Your task to perform on an android device: turn on sleep mode Image 0: 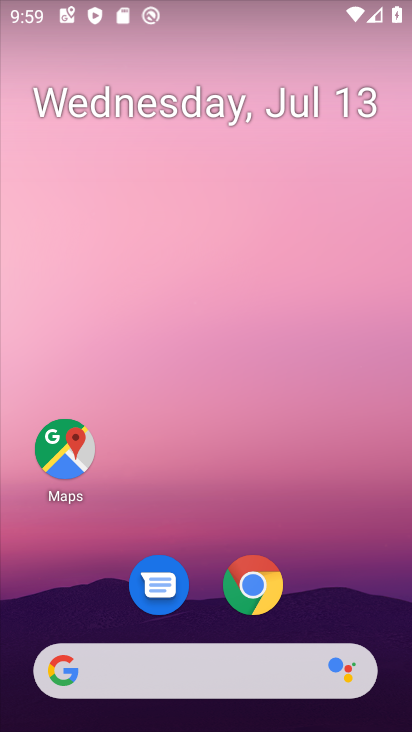
Step 0: drag from (279, 481) to (250, 23)
Your task to perform on an android device: turn on sleep mode Image 1: 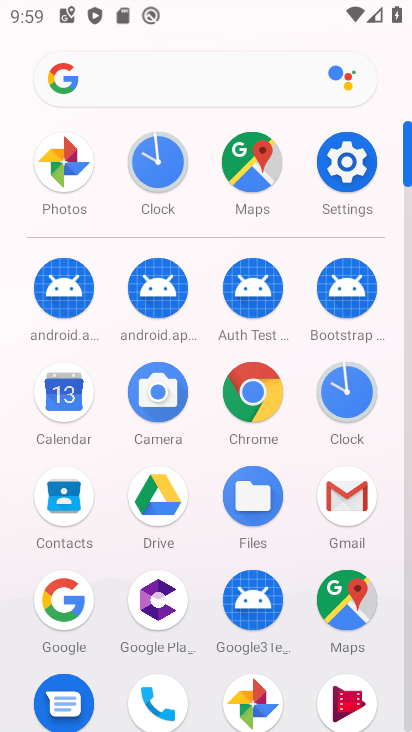
Step 1: click (334, 162)
Your task to perform on an android device: turn on sleep mode Image 2: 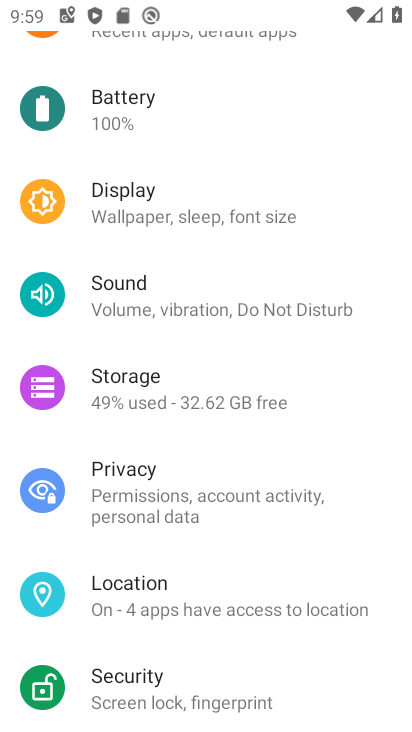
Step 2: click (211, 212)
Your task to perform on an android device: turn on sleep mode Image 3: 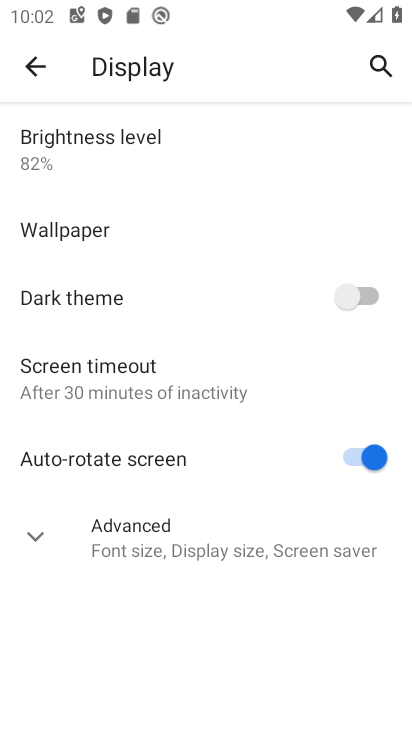
Step 3: click (35, 532)
Your task to perform on an android device: turn on sleep mode Image 4: 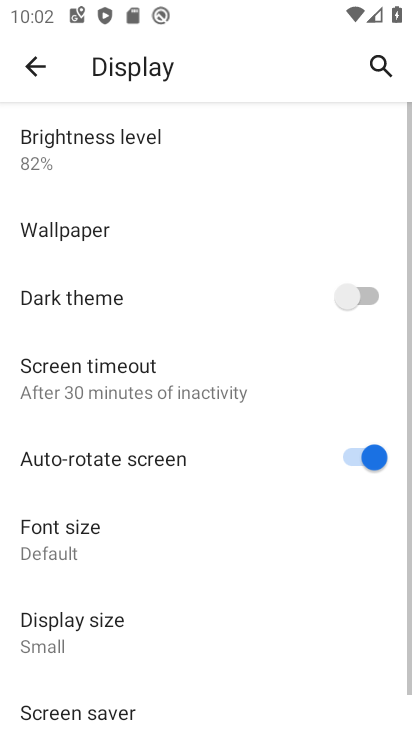
Step 4: task complete